Your task to perform on an android device: Open Android settings Image 0: 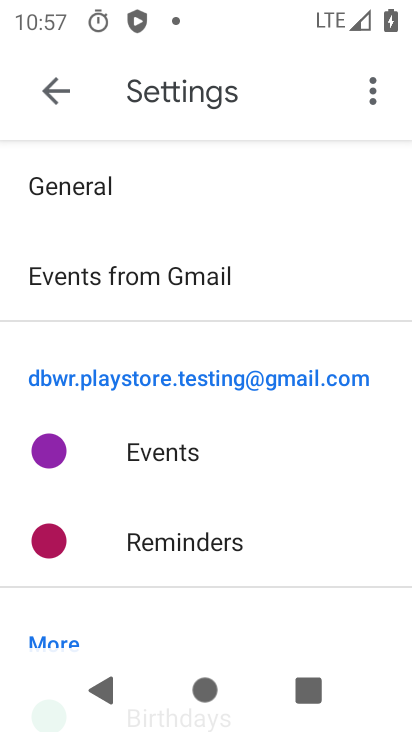
Step 0: press home button
Your task to perform on an android device: Open Android settings Image 1: 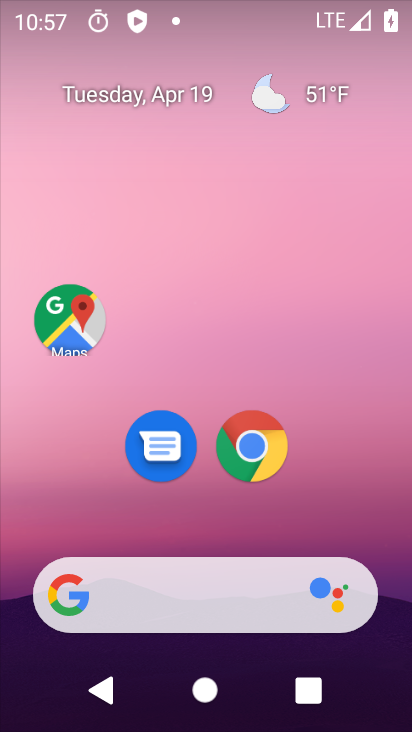
Step 1: click (356, 136)
Your task to perform on an android device: Open Android settings Image 2: 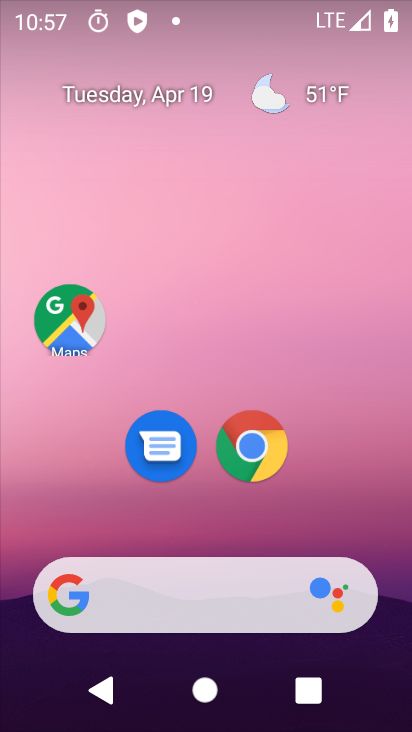
Step 2: drag from (372, 334) to (358, 168)
Your task to perform on an android device: Open Android settings Image 3: 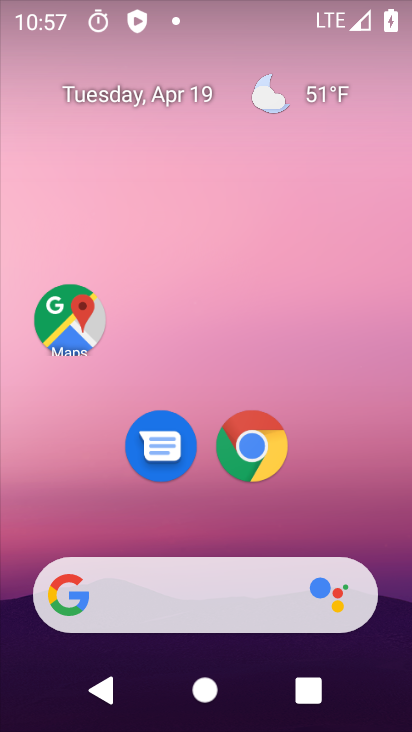
Step 3: drag from (350, 510) to (340, 146)
Your task to perform on an android device: Open Android settings Image 4: 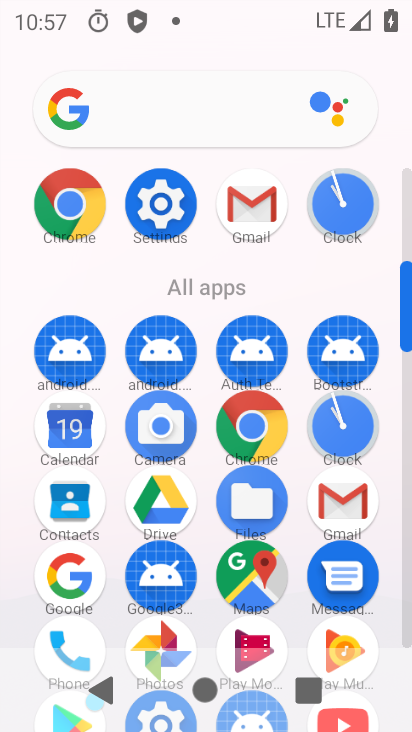
Step 4: click (165, 201)
Your task to perform on an android device: Open Android settings Image 5: 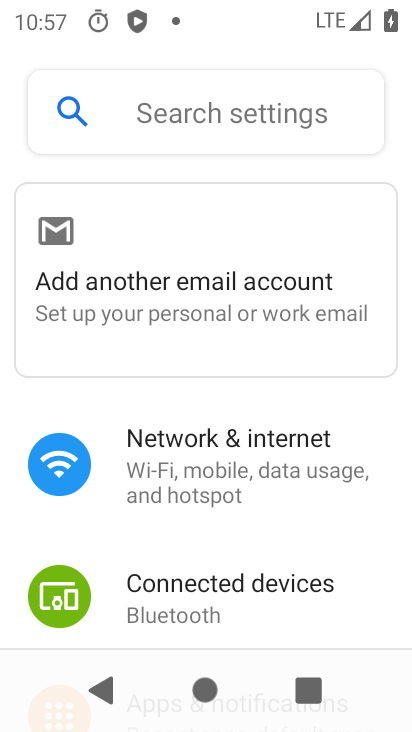
Step 5: task complete